Your task to perform on an android device: clear all cookies in the chrome app Image 0: 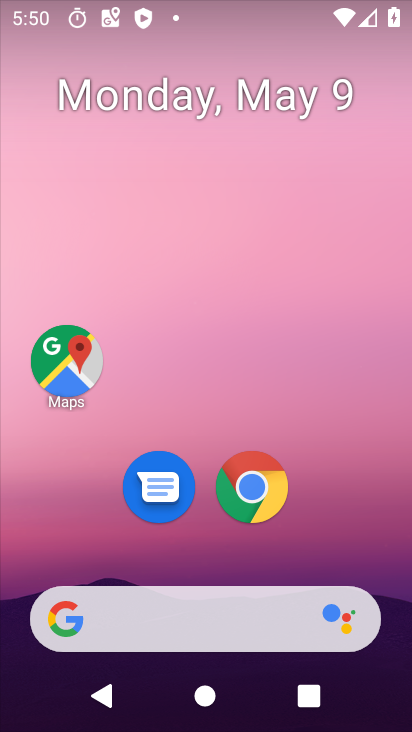
Step 0: click (235, 490)
Your task to perform on an android device: clear all cookies in the chrome app Image 1: 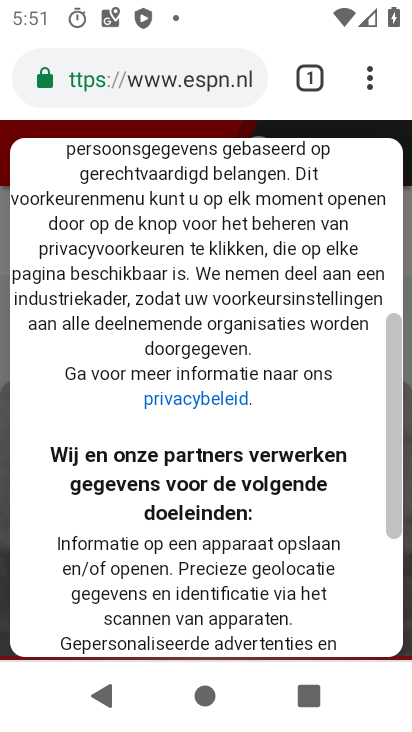
Step 1: click (368, 77)
Your task to perform on an android device: clear all cookies in the chrome app Image 2: 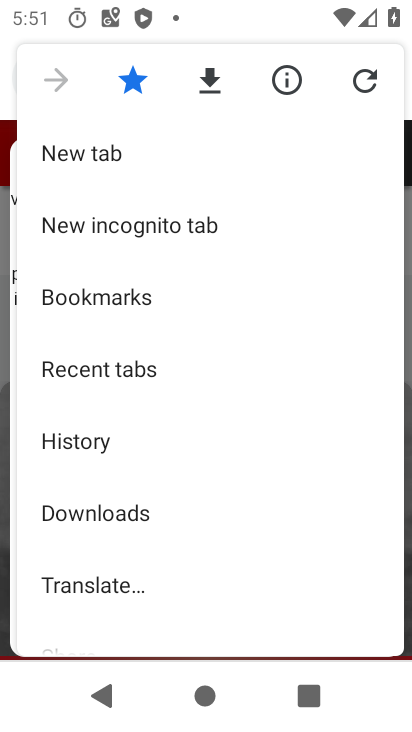
Step 2: click (100, 426)
Your task to perform on an android device: clear all cookies in the chrome app Image 3: 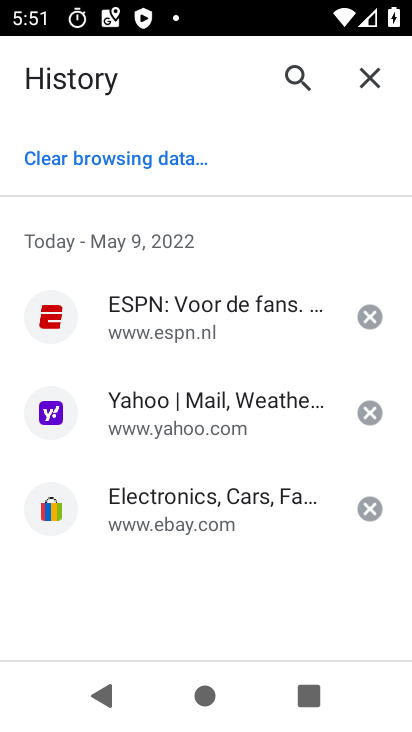
Step 3: click (175, 151)
Your task to perform on an android device: clear all cookies in the chrome app Image 4: 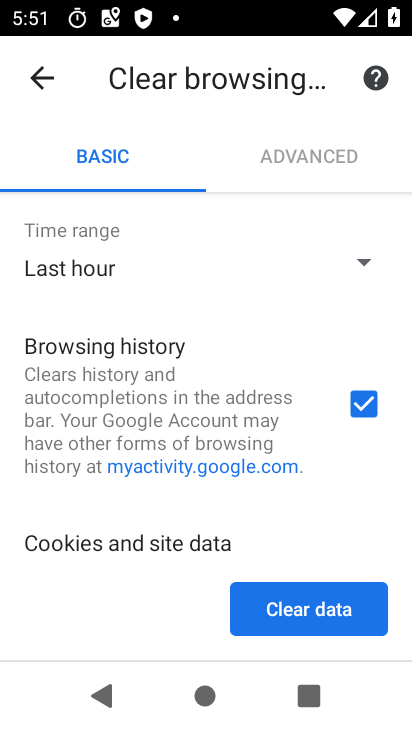
Step 4: click (367, 401)
Your task to perform on an android device: clear all cookies in the chrome app Image 5: 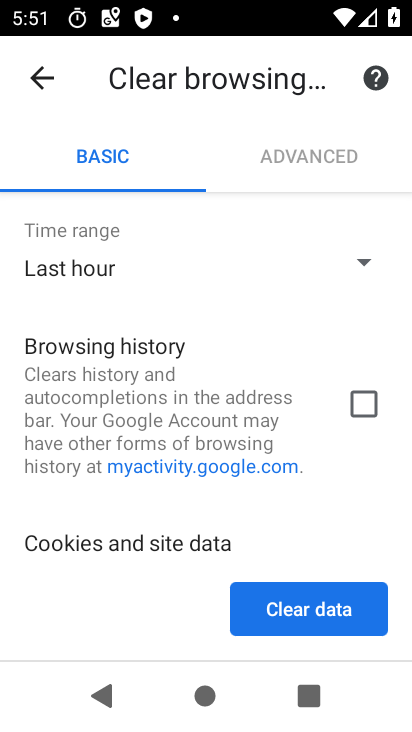
Step 5: drag from (213, 482) to (340, 536)
Your task to perform on an android device: clear all cookies in the chrome app Image 6: 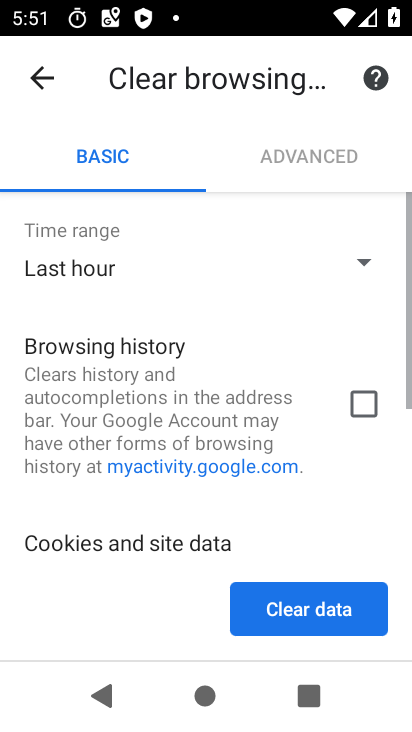
Step 6: click (372, 486)
Your task to perform on an android device: clear all cookies in the chrome app Image 7: 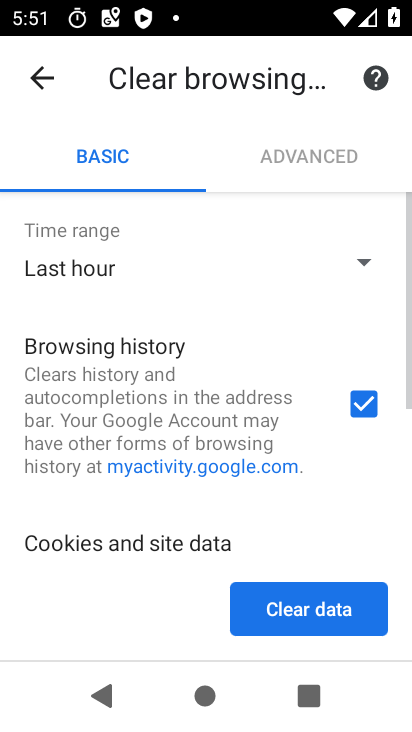
Step 7: click (362, 401)
Your task to perform on an android device: clear all cookies in the chrome app Image 8: 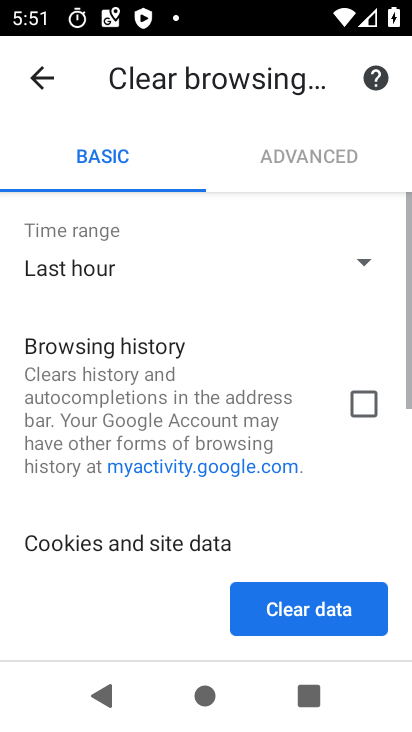
Step 8: drag from (226, 516) to (226, 303)
Your task to perform on an android device: clear all cookies in the chrome app Image 9: 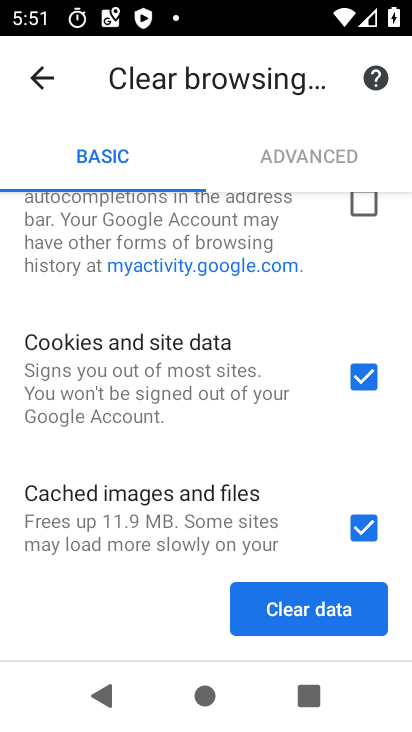
Step 9: click (359, 534)
Your task to perform on an android device: clear all cookies in the chrome app Image 10: 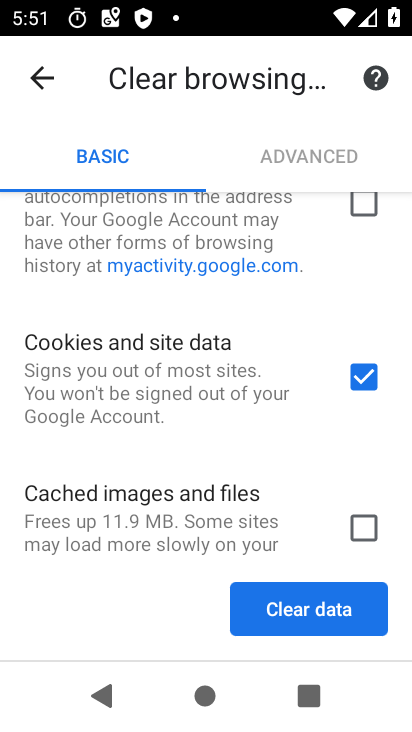
Step 10: click (269, 613)
Your task to perform on an android device: clear all cookies in the chrome app Image 11: 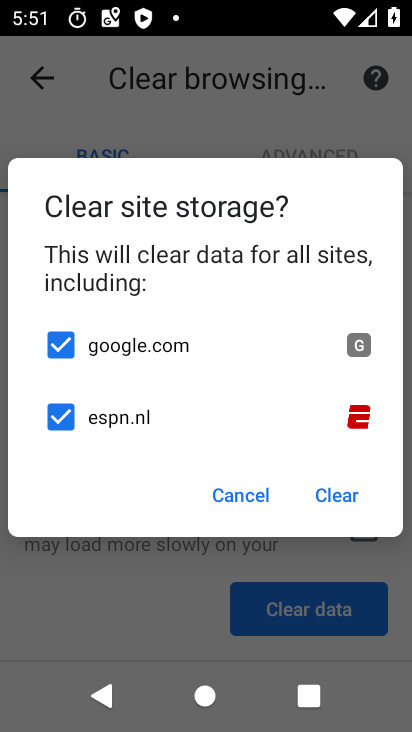
Step 11: click (325, 500)
Your task to perform on an android device: clear all cookies in the chrome app Image 12: 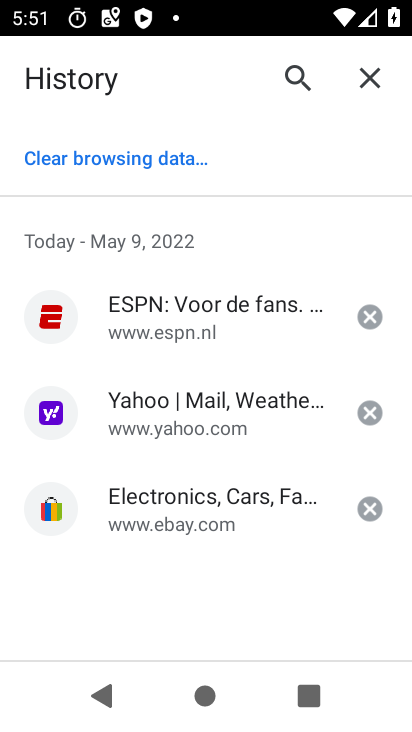
Step 12: task complete